Your task to perform on an android device: Search for "bose soundsport free" on amazon, select the first entry, add it to the cart, then select checkout. Image 0: 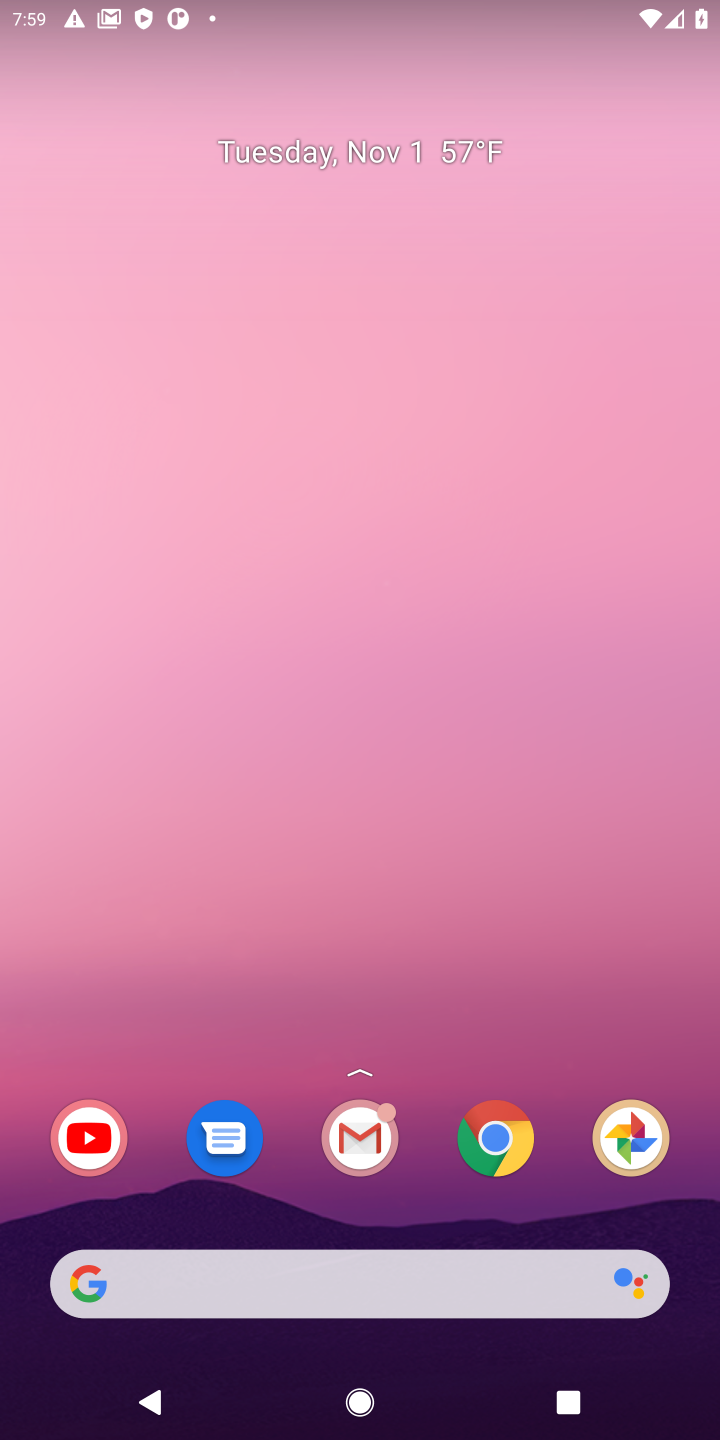
Step 0: click (502, 1152)
Your task to perform on an android device: Search for "bose soundsport free" on amazon, select the first entry, add it to the cart, then select checkout. Image 1: 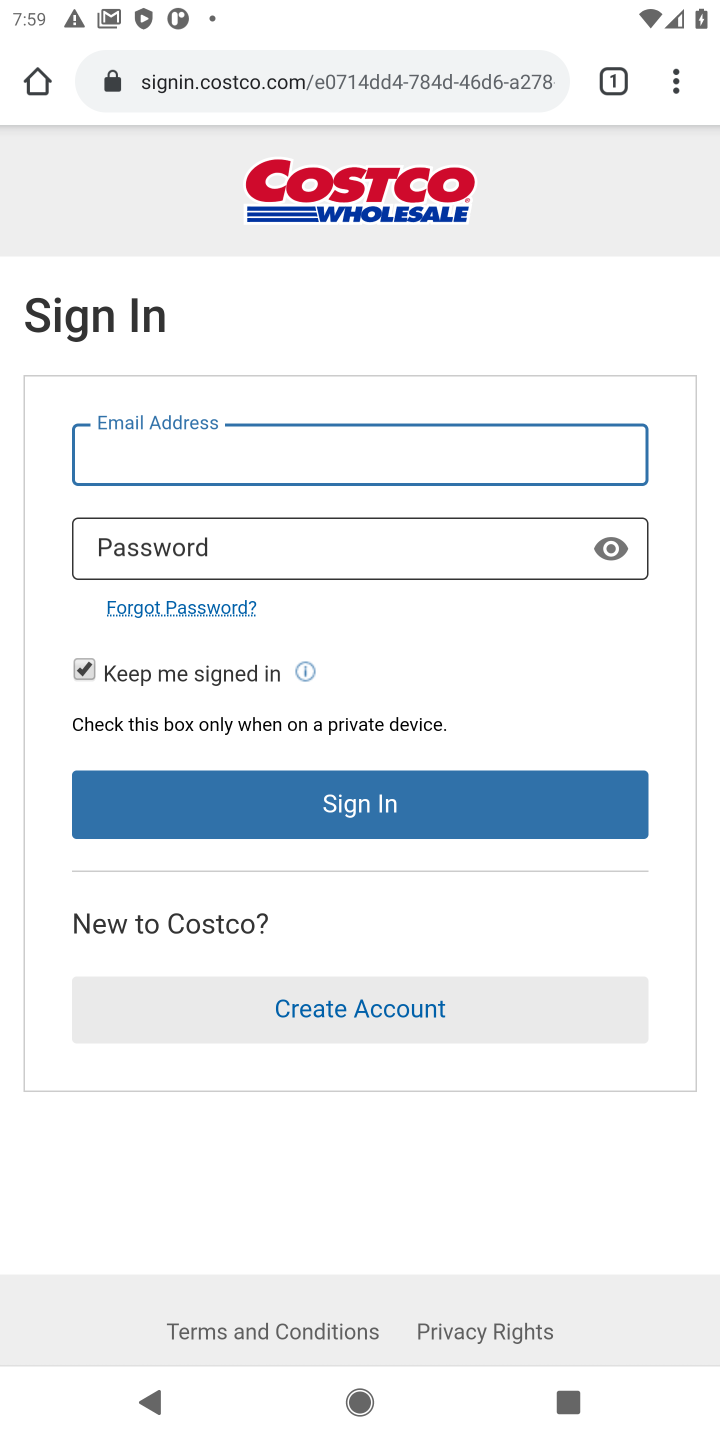
Step 1: click (255, 84)
Your task to perform on an android device: Search for "bose soundsport free" on amazon, select the first entry, add it to the cart, then select checkout. Image 2: 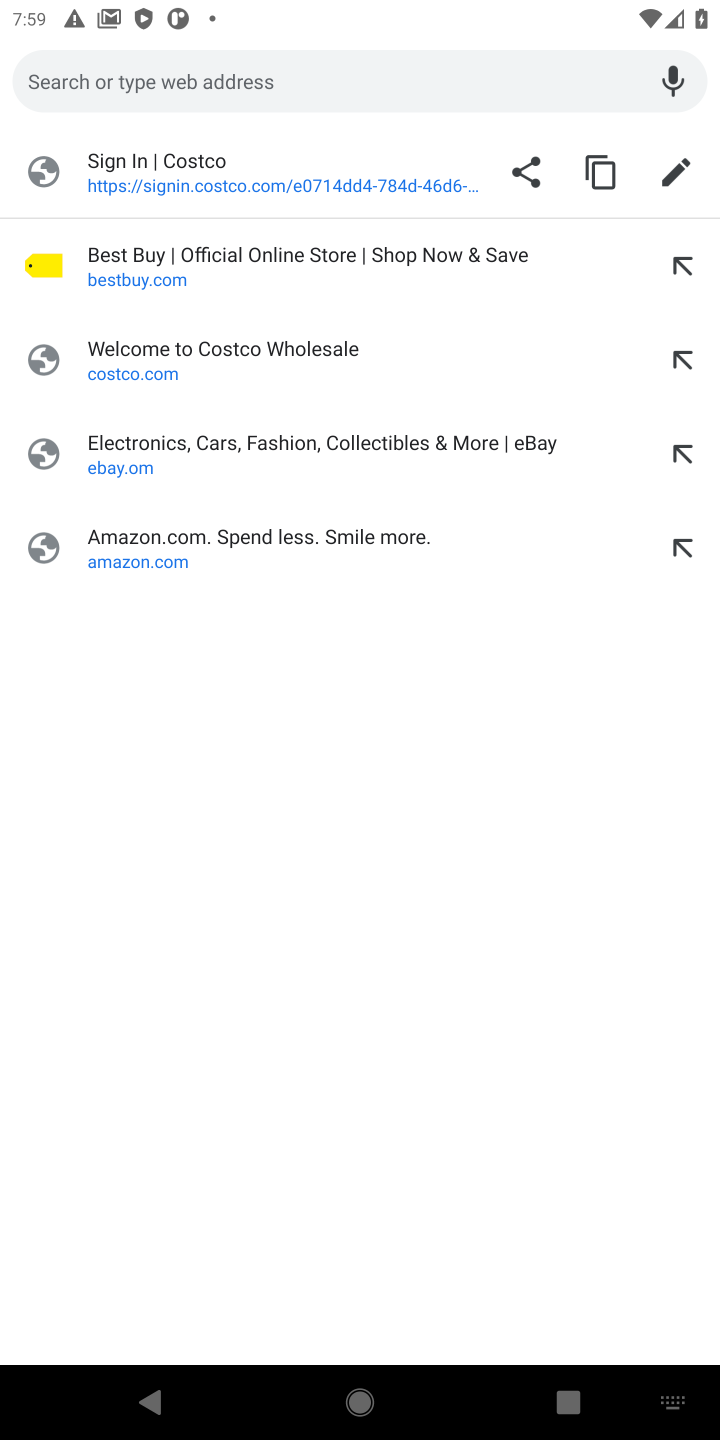
Step 2: click (127, 558)
Your task to perform on an android device: Search for "bose soundsport free" on amazon, select the first entry, add it to the cart, then select checkout. Image 3: 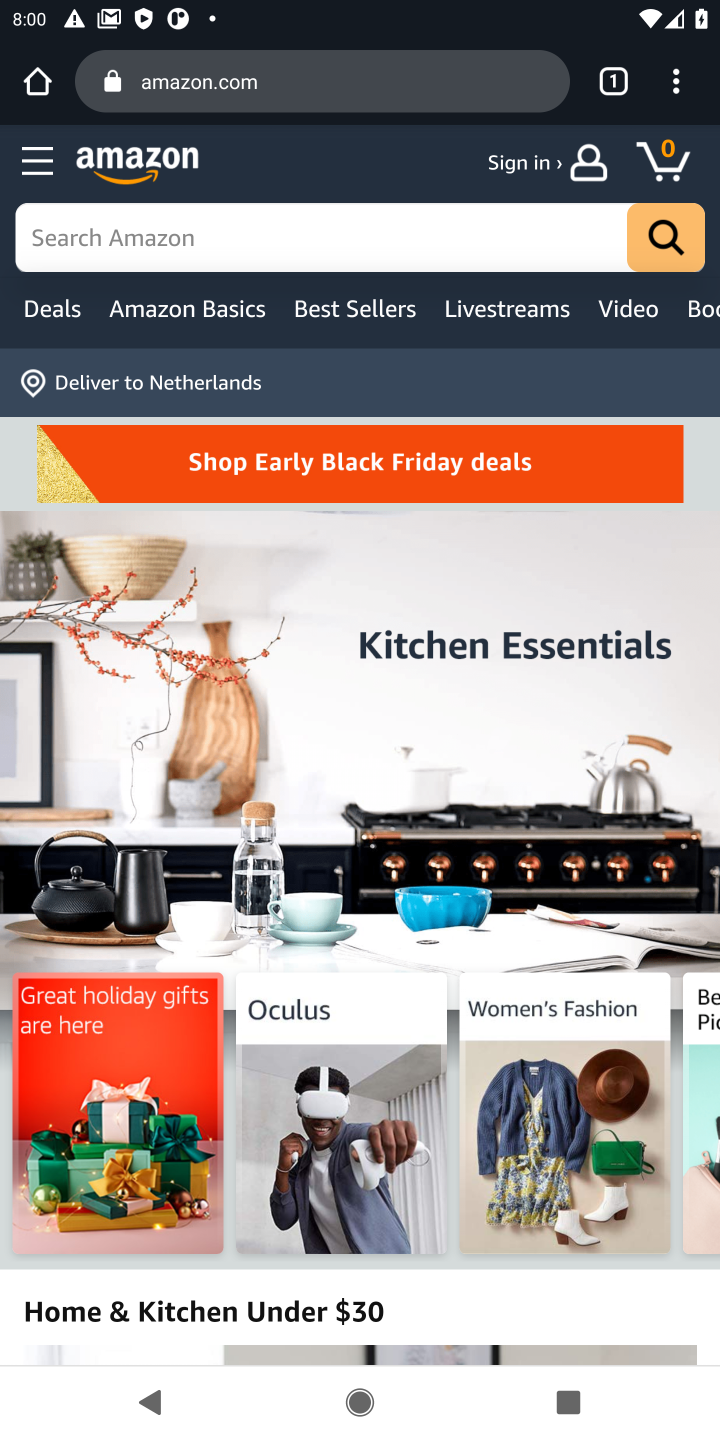
Step 3: click (193, 220)
Your task to perform on an android device: Search for "bose soundsport free" on amazon, select the first entry, add it to the cart, then select checkout. Image 4: 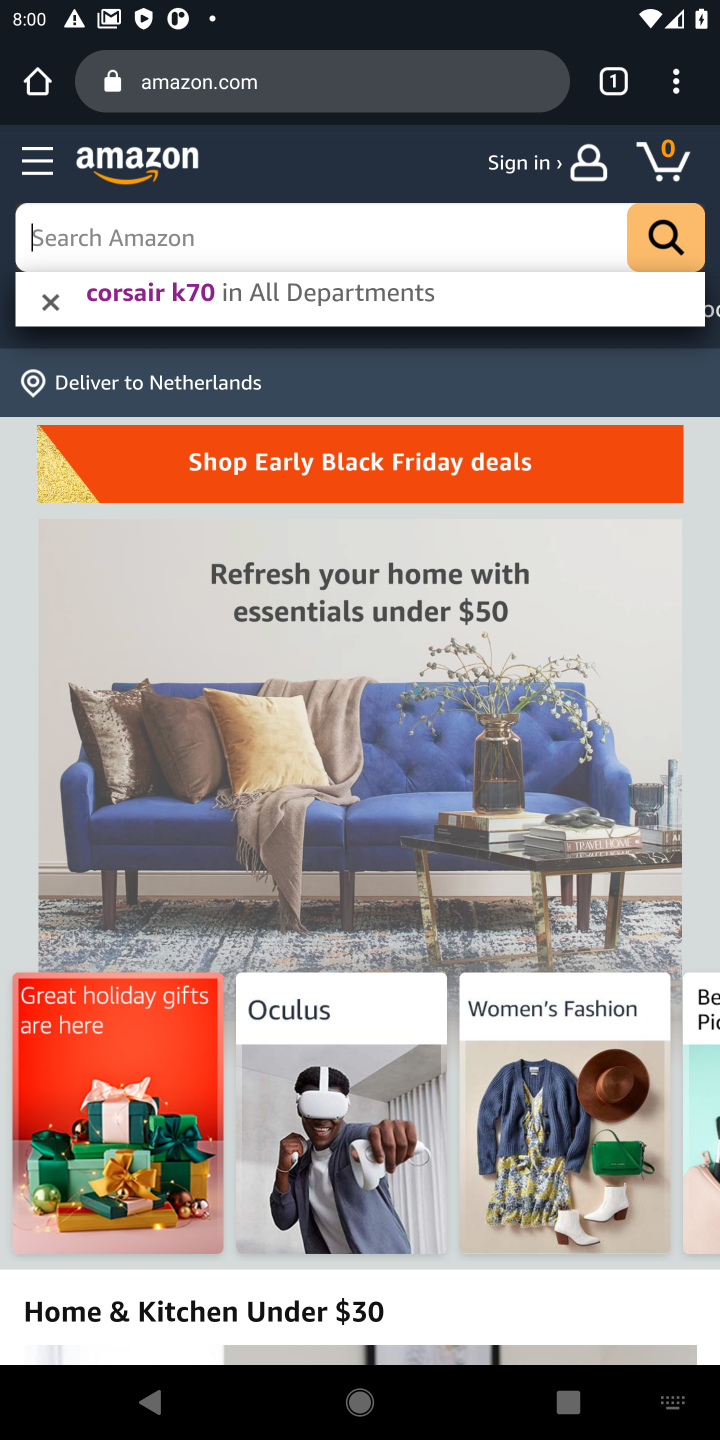
Step 4: type "bose soundsport free"
Your task to perform on an android device: Search for "bose soundsport free" on amazon, select the first entry, add it to the cart, then select checkout. Image 5: 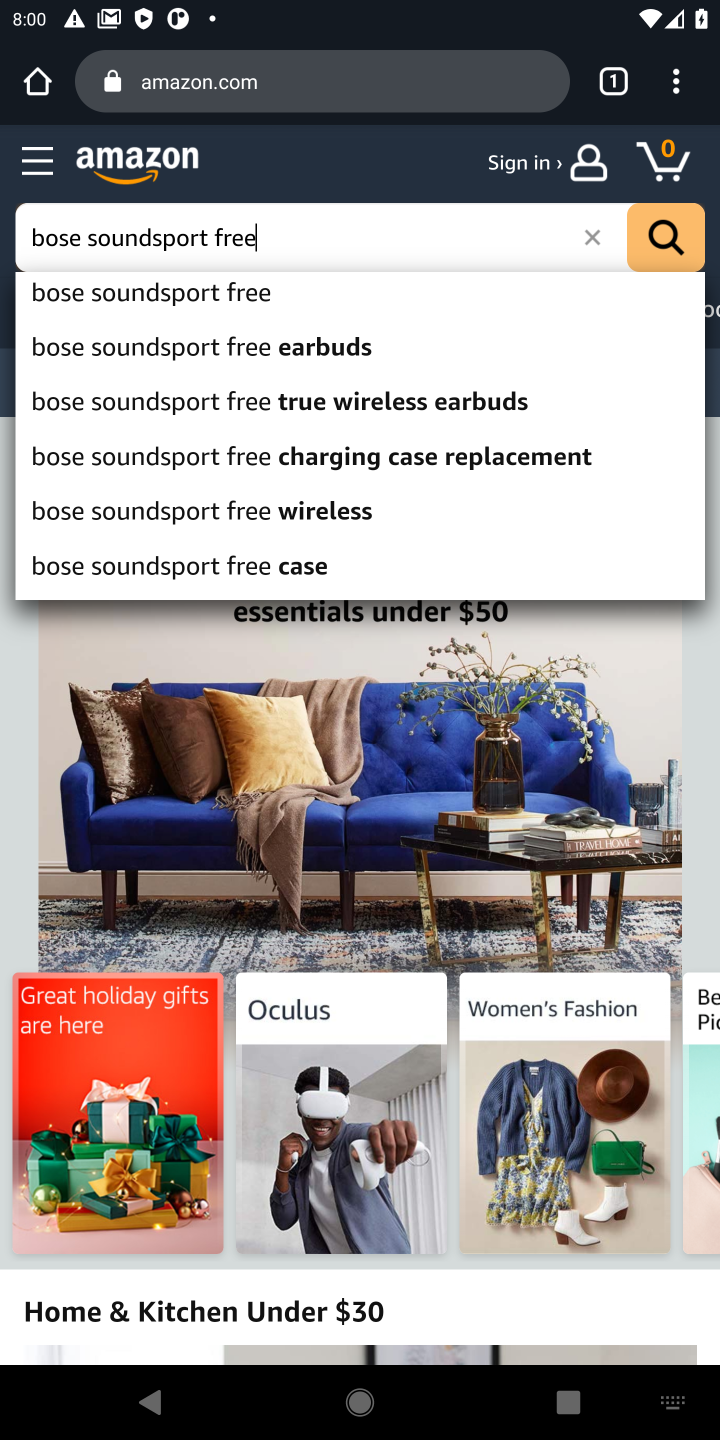
Step 5: click (153, 297)
Your task to perform on an android device: Search for "bose soundsport free" on amazon, select the first entry, add it to the cart, then select checkout. Image 6: 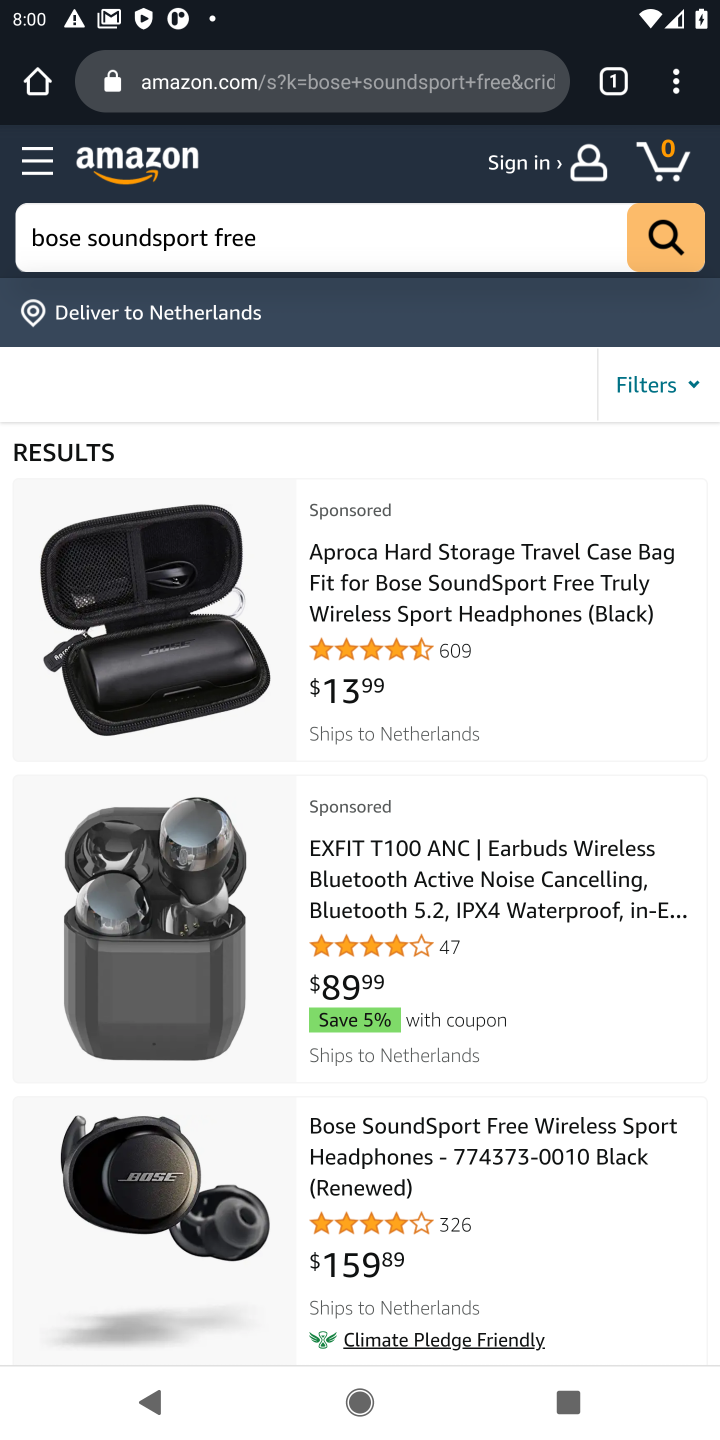
Step 6: click (294, 590)
Your task to perform on an android device: Search for "bose soundsport free" on amazon, select the first entry, add it to the cart, then select checkout. Image 7: 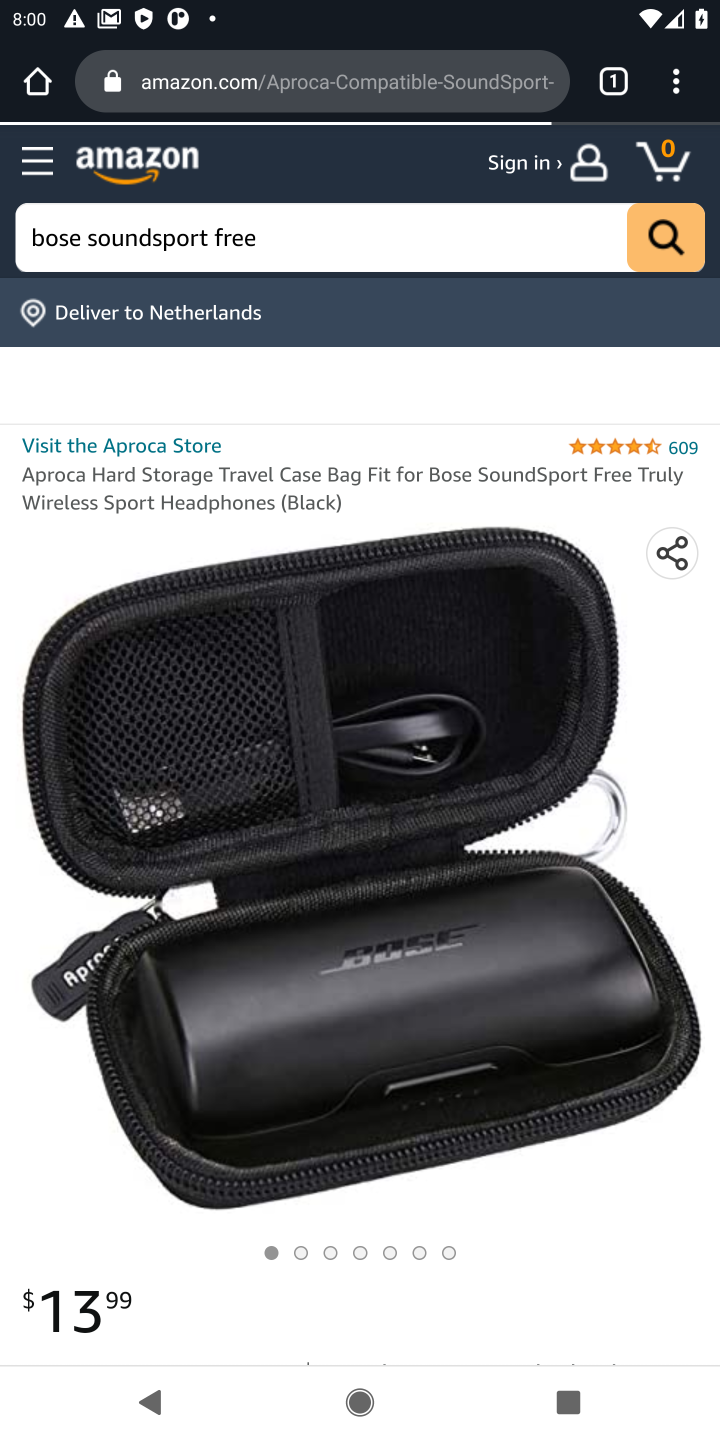
Step 7: drag from (367, 1081) to (324, 417)
Your task to perform on an android device: Search for "bose soundsport free" on amazon, select the first entry, add it to the cart, then select checkout. Image 8: 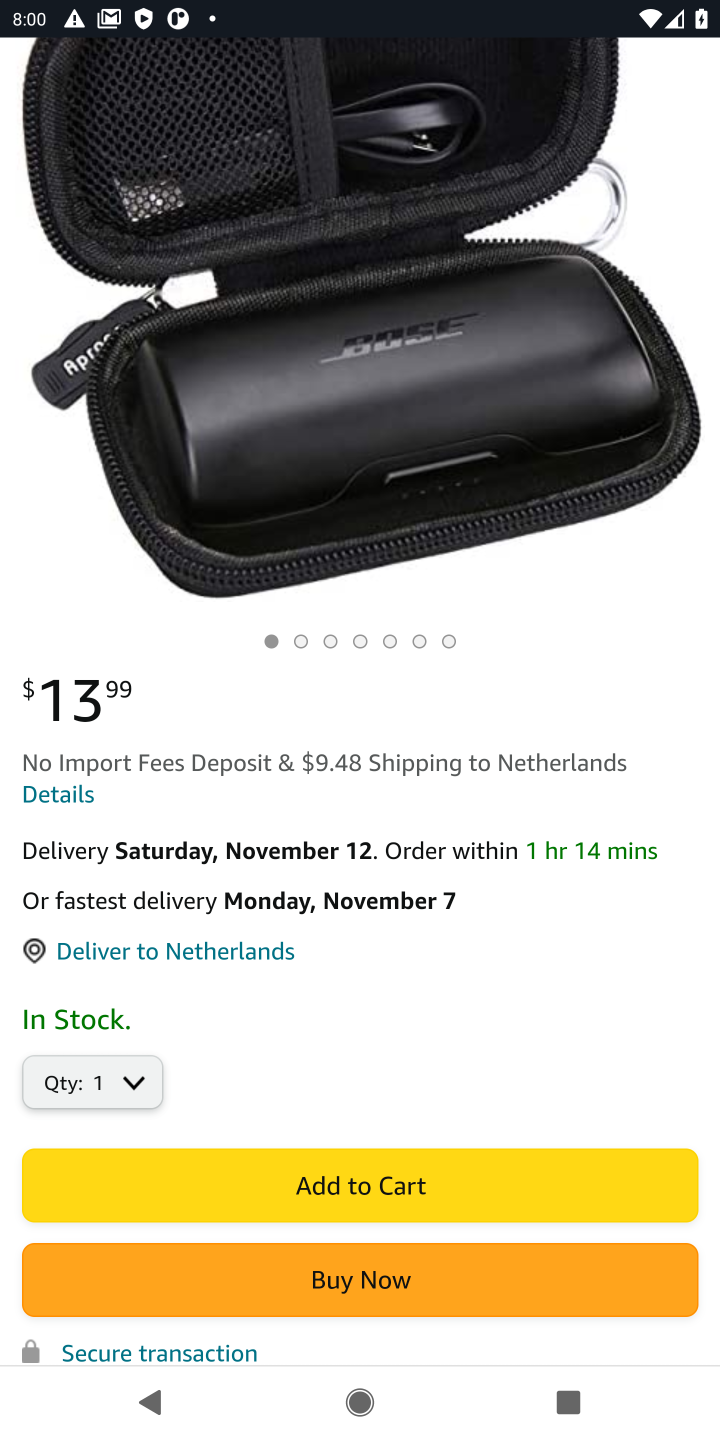
Step 8: click (326, 1192)
Your task to perform on an android device: Search for "bose soundsport free" on amazon, select the first entry, add it to the cart, then select checkout. Image 9: 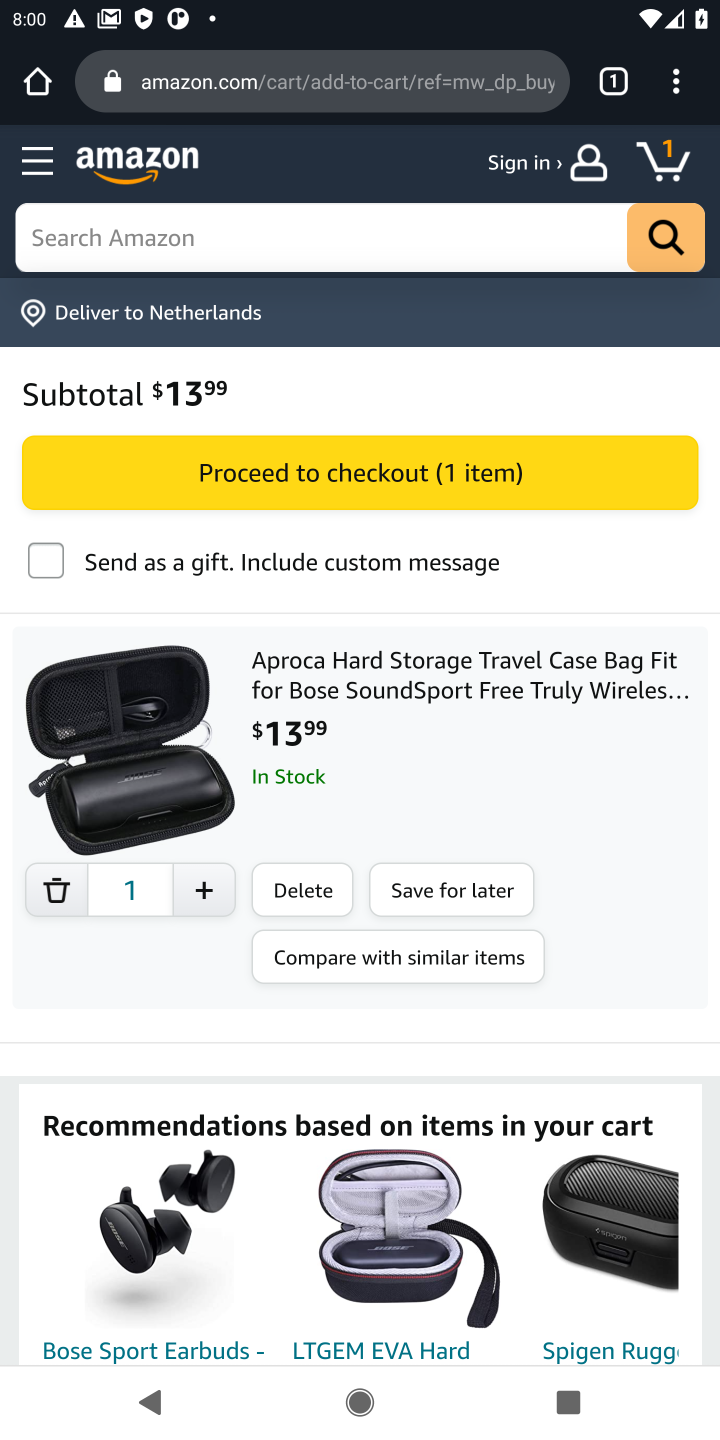
Step 9: click (317, 483)
Your task to perform on an android device: Search for "bose soundsport free" on amazon, select the first entry, add it to the cart, then select checkout. Image 10: 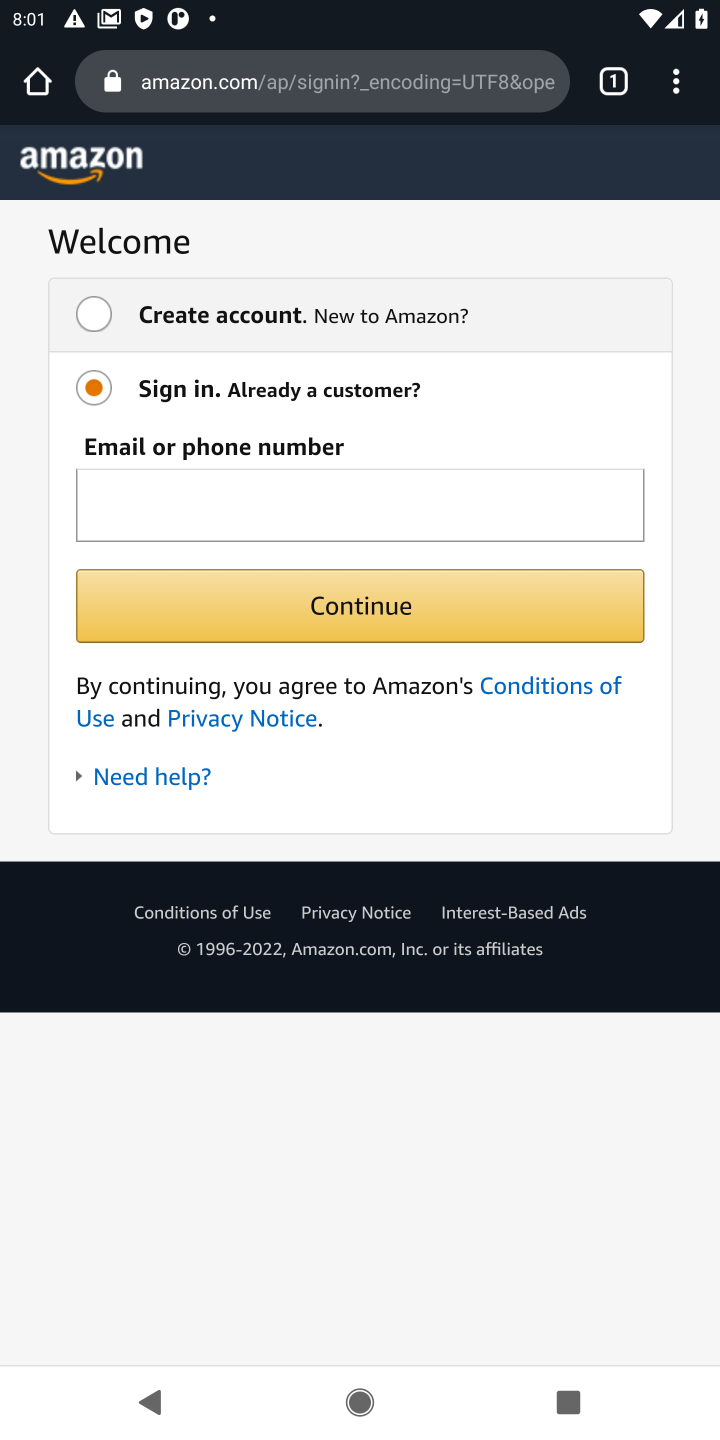
Step 10: task complete